Your task to perform on an android device: turn off notifications settings in the gmail app Image 0: 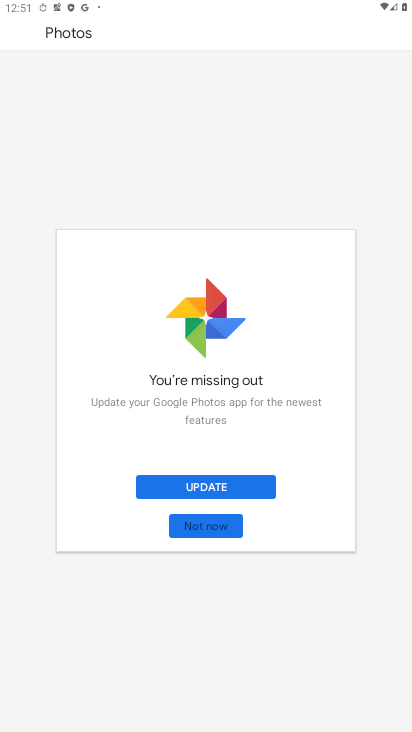
Step 0: press home button
Your task to perform on an android device: turn off notifications settings in the gmail app Image 1: 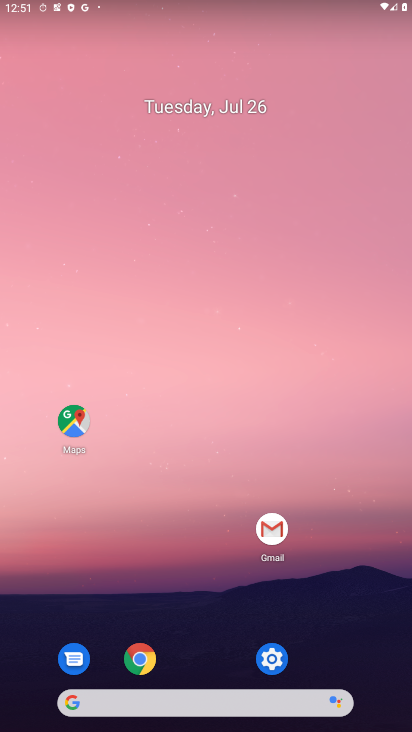
Step 1: click (261, 536)
Your task to perform on an android device: turn off notifications settings in the gmail app Image 2: 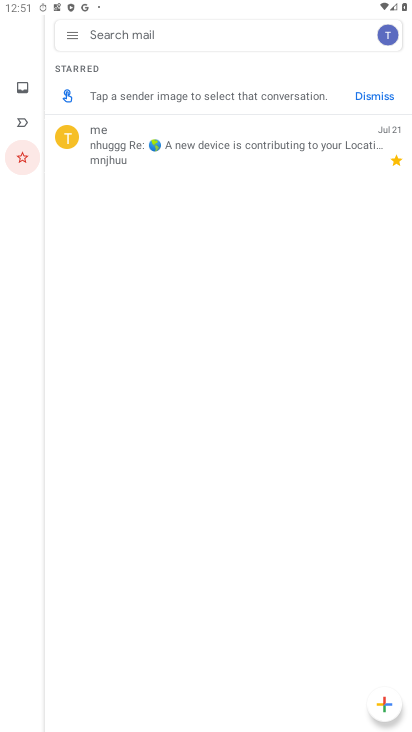
Step 2: click (75, 32)
Your task to perform on an android device: turn off notifications settings in the gmail app Image 3: 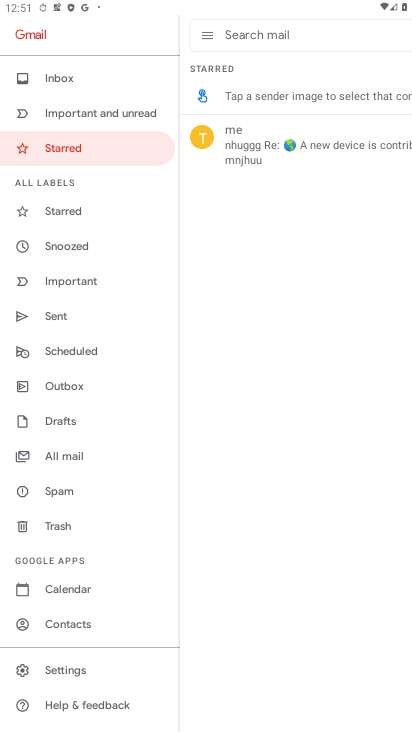
Step 3: click (67, 676)
Your task to perform on an android device: turn off notifications settings in the gmail app Image 4: 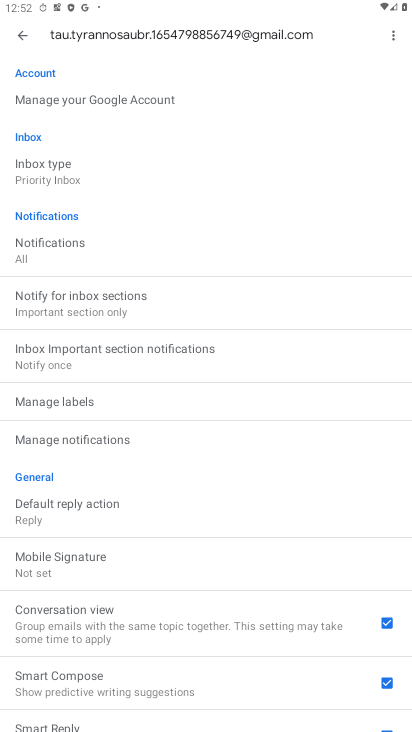
Step 4: click (56, 240)
Your task to perform on an android device: turn off notifications settings in the gmail app Image 5: 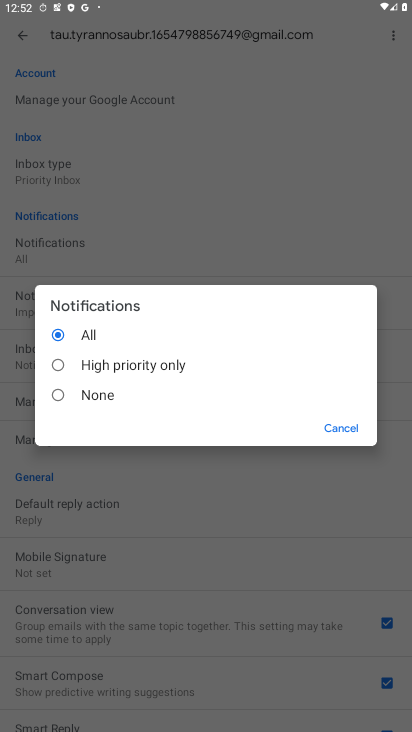
Step 5: click (108, 394)
Your task to perform on an android device: turn off notifications settings in the gmail app Image 6: 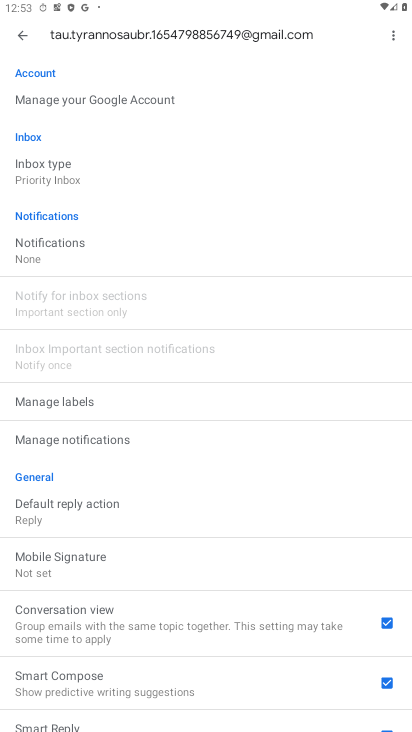
Step 6: task complete